Your task to perform on an android device: add a label to a message in the gmail app Image 0: 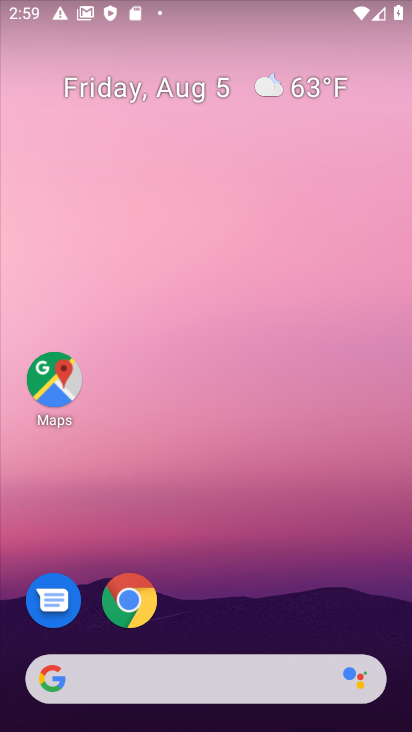
Step 0: drag from (170, 703) to (191, 68)
Your task to perform on an android device: add a label to a message in the gmail app Image 1: 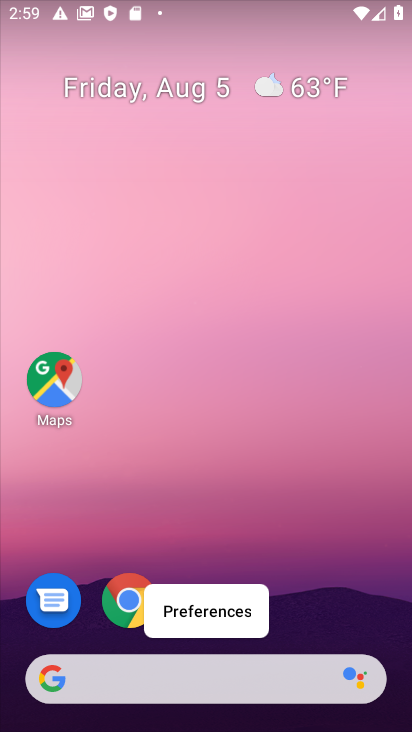
Step 1: drag from (188, 683) to (222, 12)
Your task to perform on an android device: add a label to a message in the gmail app Image 2: 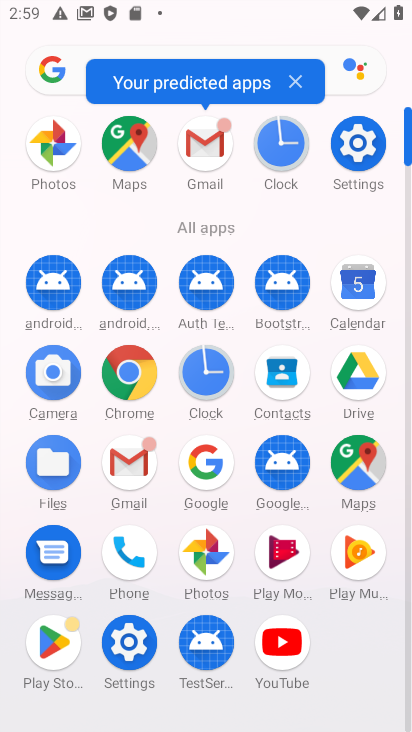
Step 2: click (206, 146)
Your task to perform on an android device: add a label to a message in the gmail app Image 3: 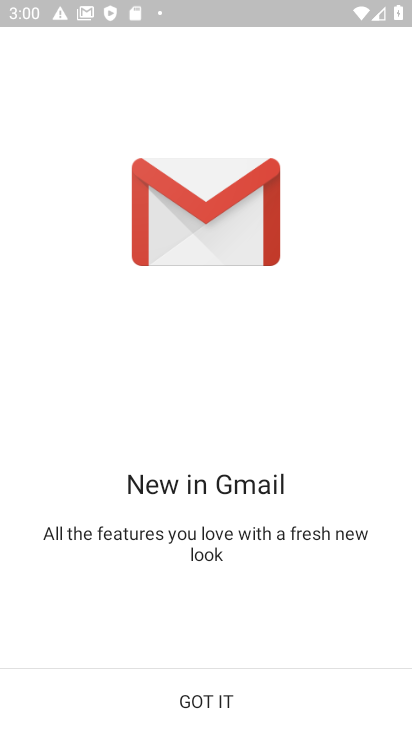
Step 3: click (218, 704)
Your task to perform on an android device: add a label to a message in the gmail app Image 4: 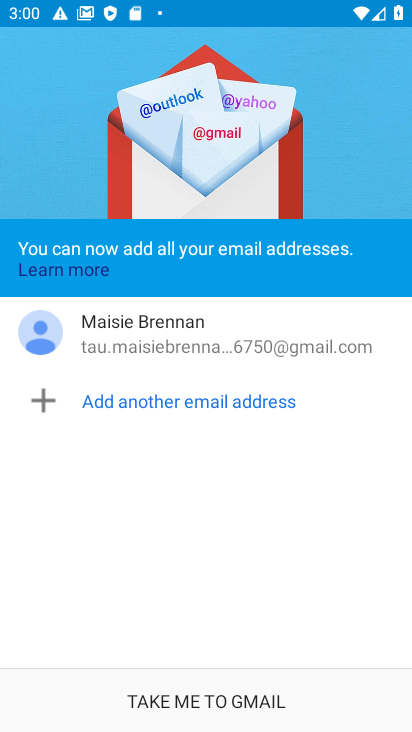
Step 4: click (218, 704)
Your task to perform on an android device: add a label to a message in the gmail app Image 5: 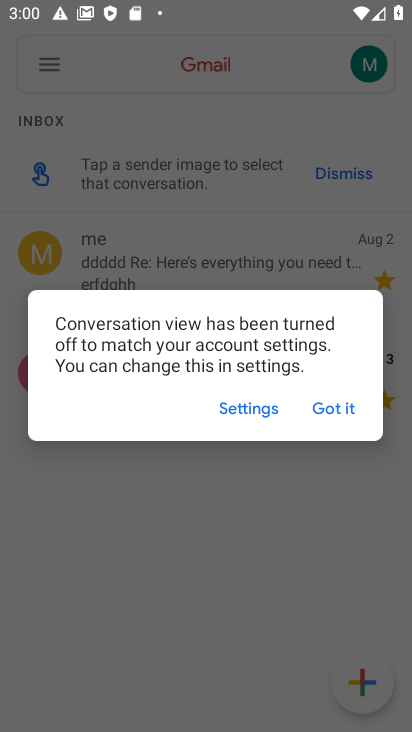
Step 5: click (348, 421)
Your task to perform on an android device: add a label to a message in the gmail app Image 6: 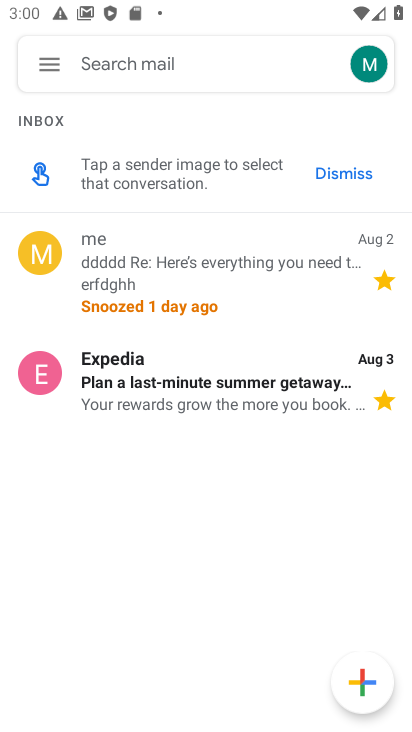
Step 6: click (48, 68)
Your task to perform on an android device: add a label to a message in the gmail app Image 7: 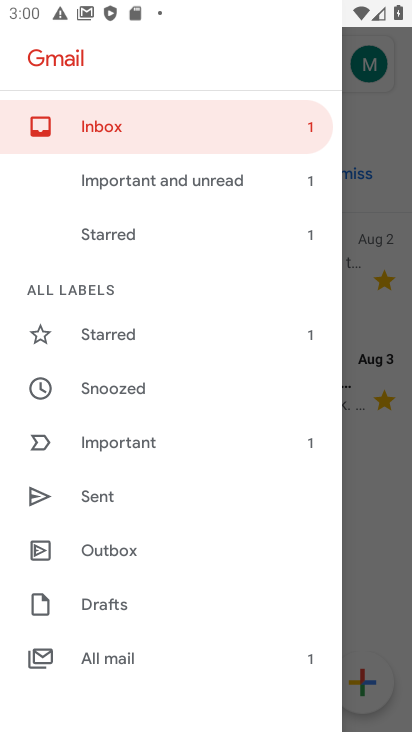
Step 7: click (124, 655)
Your task to perform on an android device: add a label to a message in the gmail app Image 8: 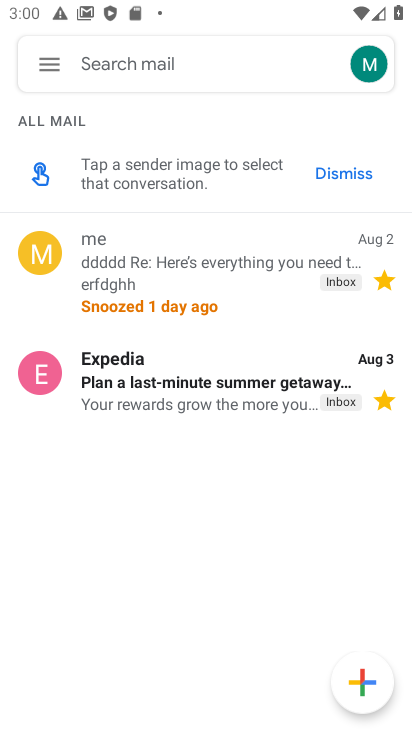
Step 8: click (231, 271)
Your task to perform on an android device: add a label to a message in the gmail app Image 9: 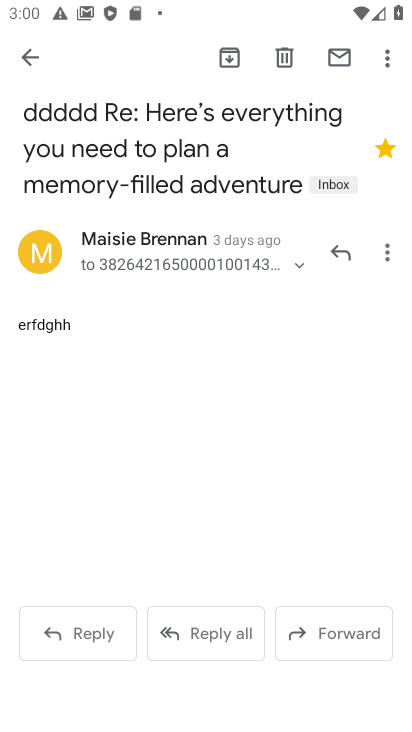
Step 9: click (29, 66)
Your task to perform on an android device: add a label to a message in the gmail app Image 10: 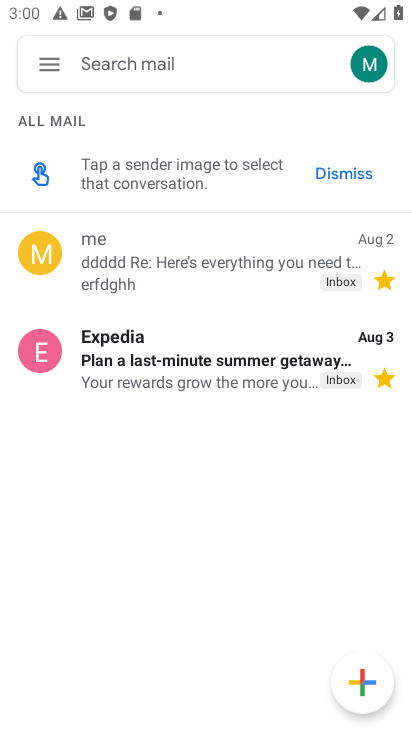
Step 10: click (155, 358)
Your task to perform on an android device: add a label to a message in the gmail app Image 11: 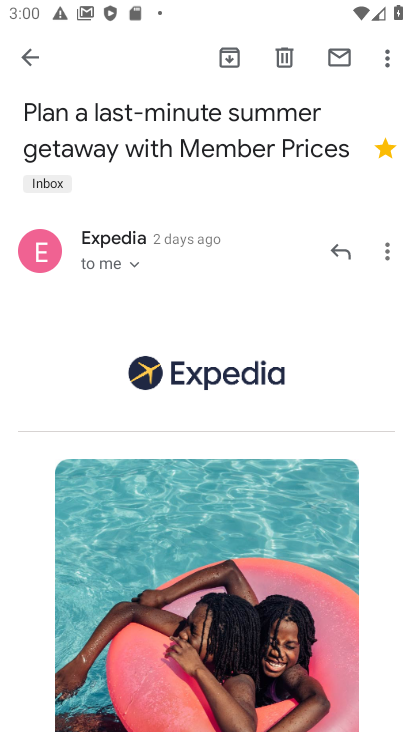
Step 11: drag from (220, 508) to (251, 199)
Your task to perform on an android device: add a label to a message in the gmail app Image 12: 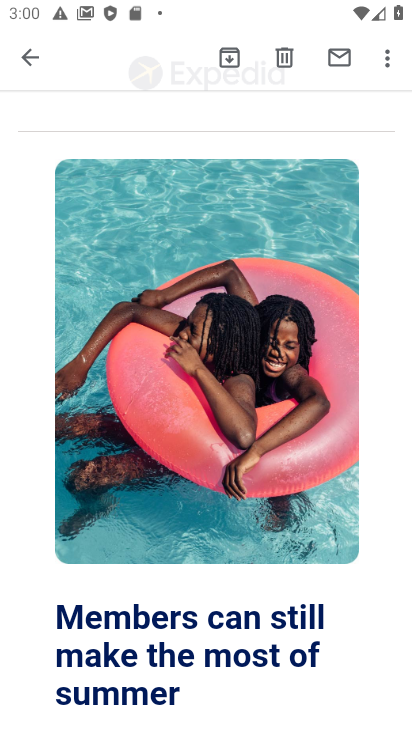
Step 12: click (25, 56)
Your task to perform on an android device: add a label to a message in the gmail app Image 13: 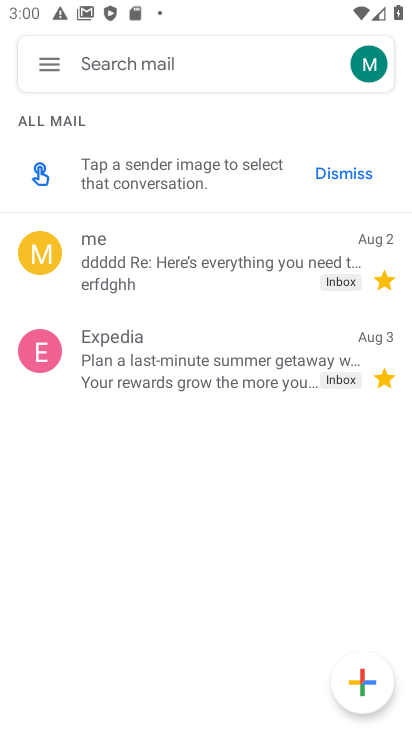
Step 13: click (41, 58)
Your task to perform on an android device: add a label to a message in the gmail app Image 14: 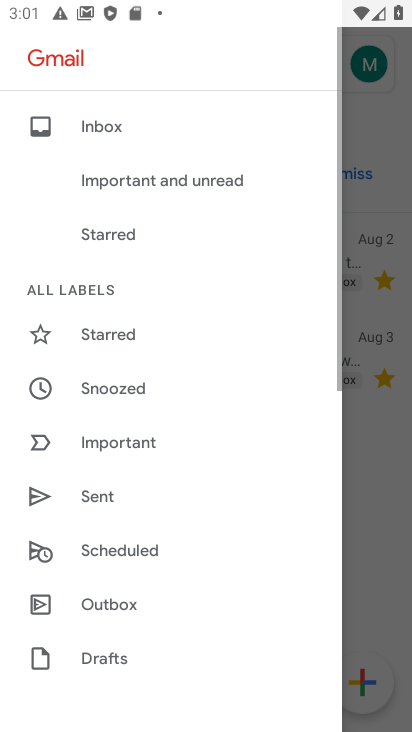
Step 14: click (90, 128)
Your task to perform on an android device: add a label to a message in the gmail app Image 15: 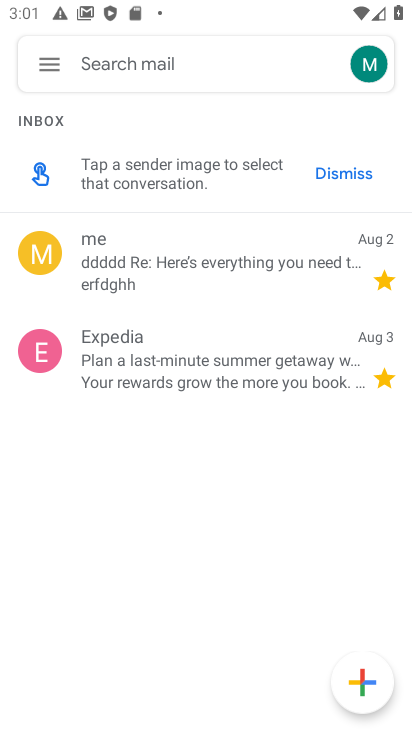
Step 15: click (141, 248)
Your task to perform on an android device: add a label to a message in the gmail app Image 16: 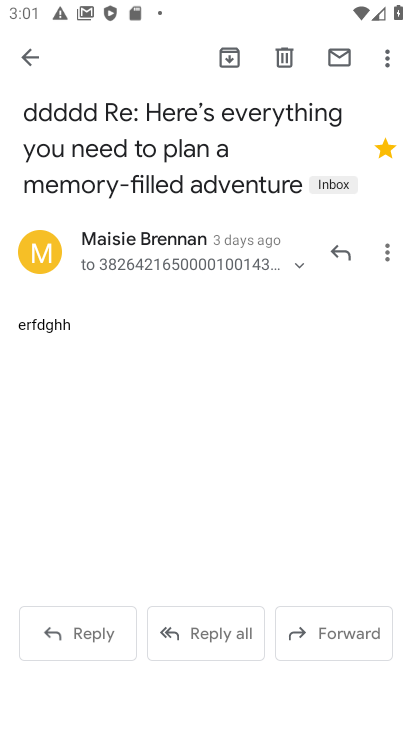
Step 16: click (239, 62)
Your task to perform on an android device: add a label to a message in the gmail app Image 17: 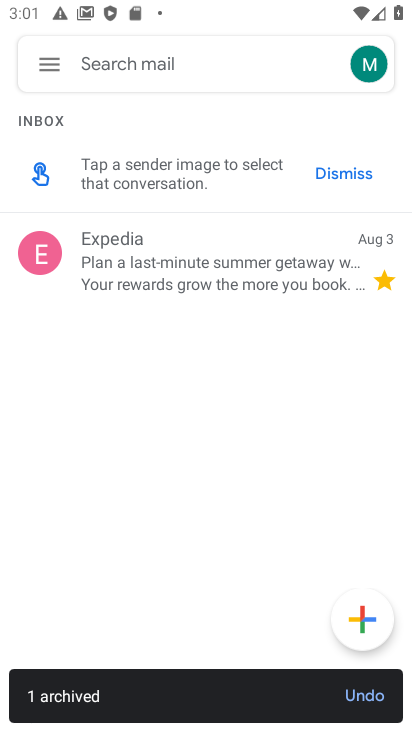
Step 17: click (52, 66)
Your task to perform on an android device: add a label to a message in the gmail app Image 18: 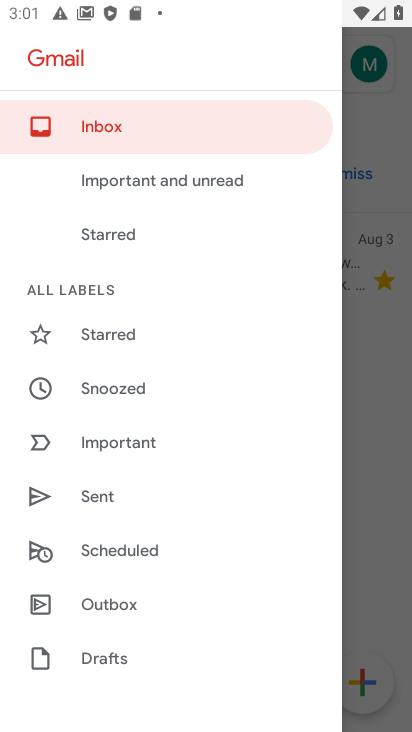
Step 18: click (117, 333)
Your task to perform on an android device: add a label to a message in the gmail app Image 19: 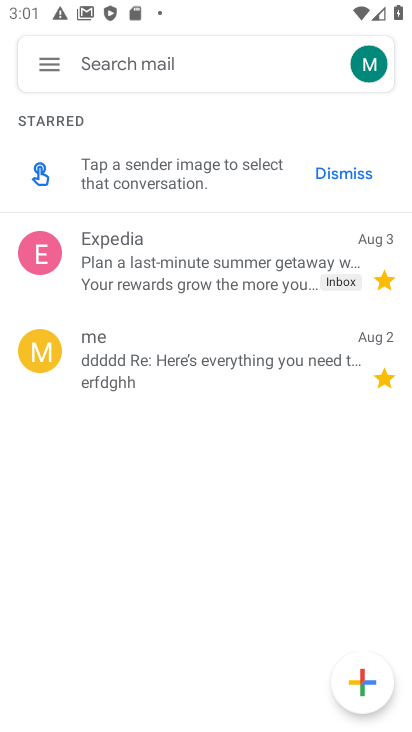
Step 19: click (180, 254)
Your task to perform on an android device: add a label to a message in the gmail app Image 20: 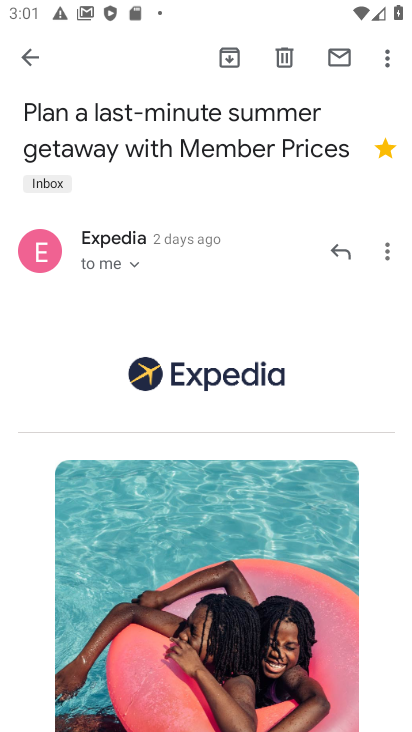
Step 20: drag from (184, 571) to (272, 257)
Your task to perform on an android device: add a label to a message in the gmail app Image 21: 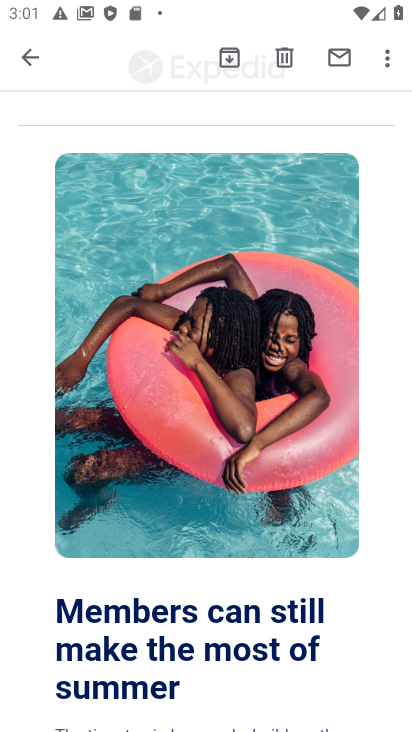
Step 21: drag from (179, 277) to (231, 552)
Your task to perform on an android device: add a label to a message in the gmail app Image 22: 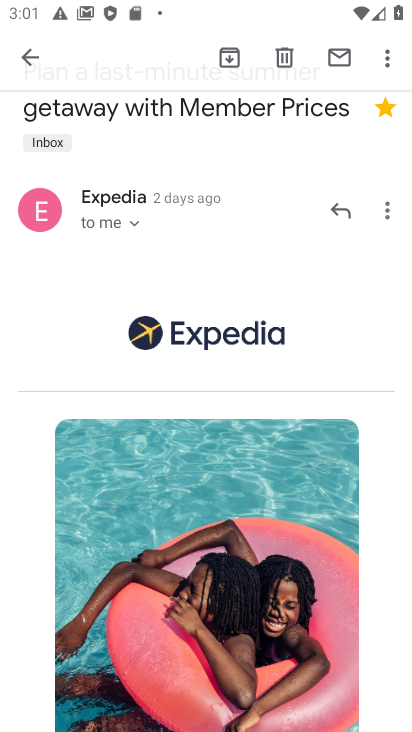
Step 22: click (136, 224)
Your task to perform on an android device: add a label to a message in the gmail app Image 23: 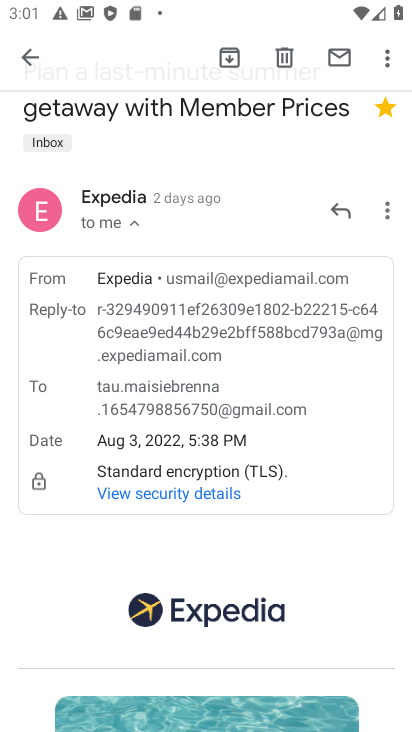
Step 23: drag from (173, 157) to (220, 377)
Your task to perform on an android device: add a label to a message in the gmail app Image 24: 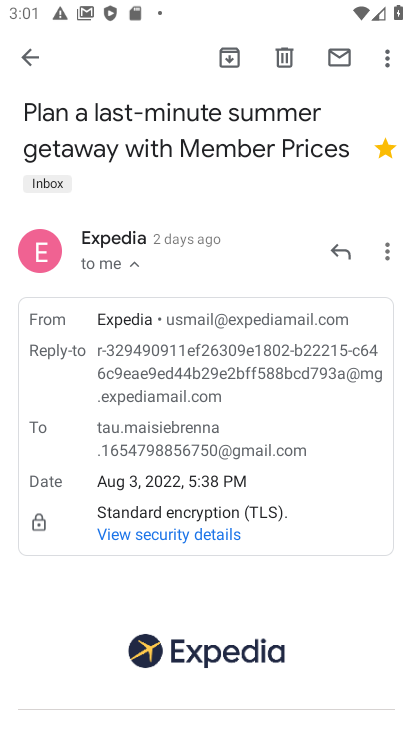
Step 24: click (382, 158)
Your task to perform on an android device: add a label to a message in the gmail app Image 25: 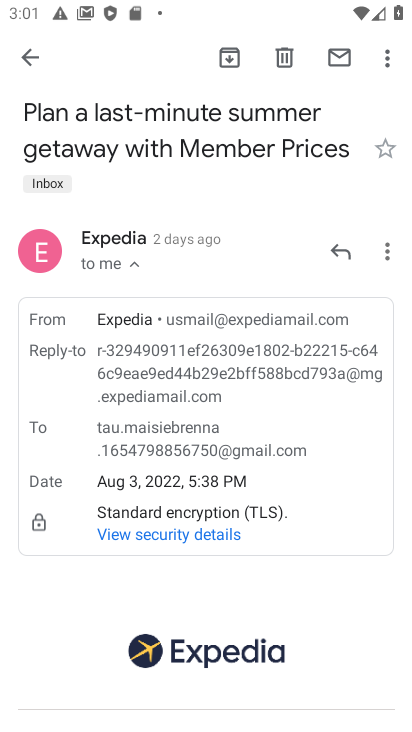
Step 25: click (388, 59)
Your task to perform on an android device: add a label to a message in the gmail app Image 26: 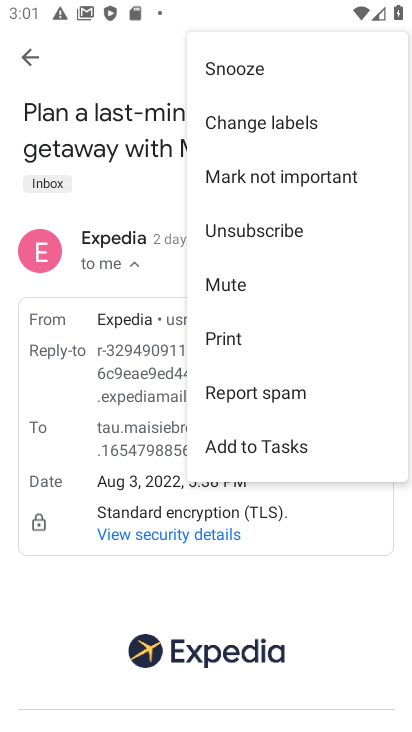
Step 26: click (303, 138)
Your task to perform on an android device: add a label to a message in the gmail app Image 27: 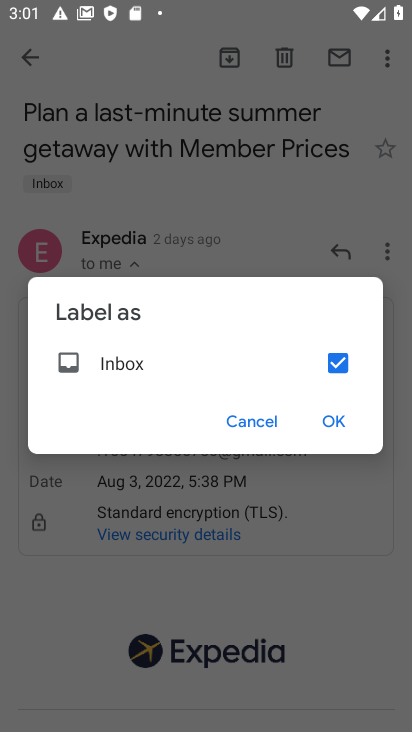
Step 27: click (356, 434)
Your task to perform on an android device: add a label to a message in the gmail app Image 28: 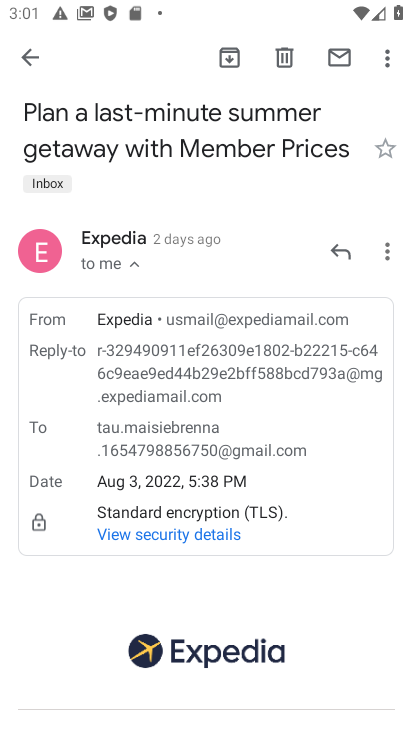
Step 28: press back button
Your task to perform on an android device: add a label to a message in the gmail app Image 29: 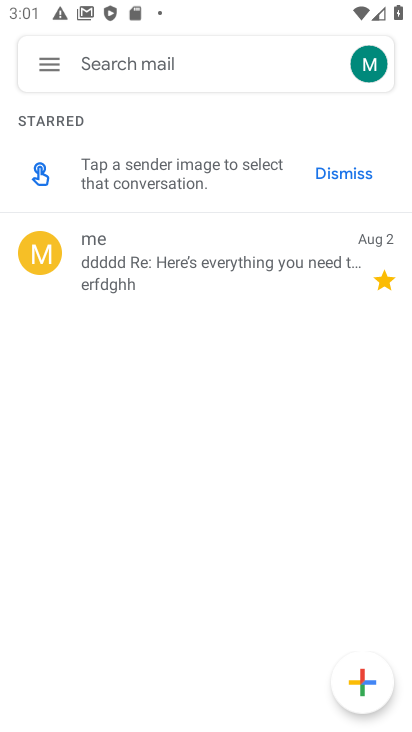
Step 29: click (43, 58)
Your task to perform on an android device: add a label to a message in the gmail app Image 30: 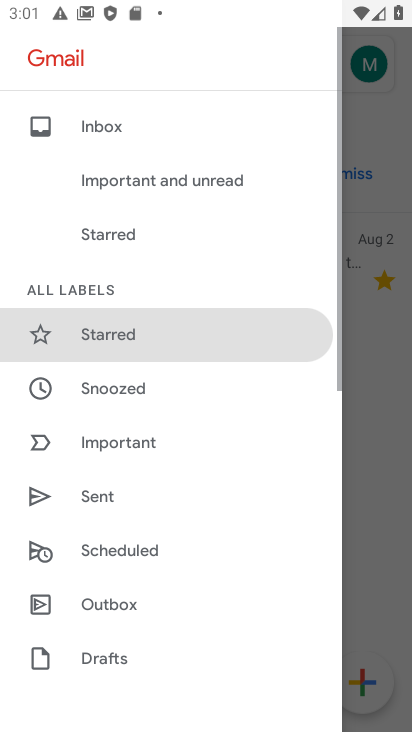
Step 30: click (136, 127)
Your task to perform on an android device: add a label to a message in the gmail app Image 31: 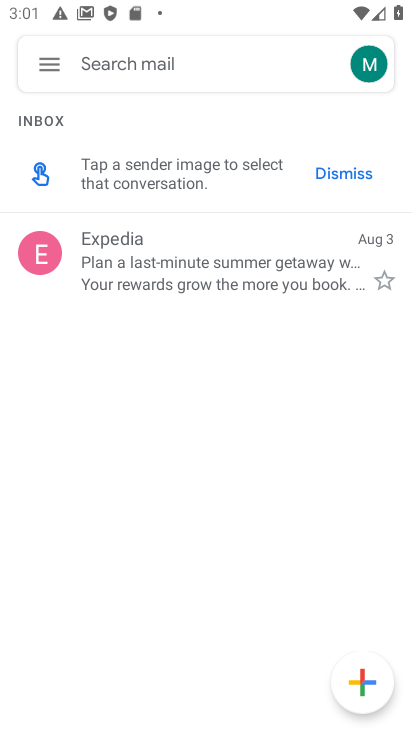
Step 31: click (152, 259)
Your task to perform on an android device: add a label to a message in the gmail app Image 32: 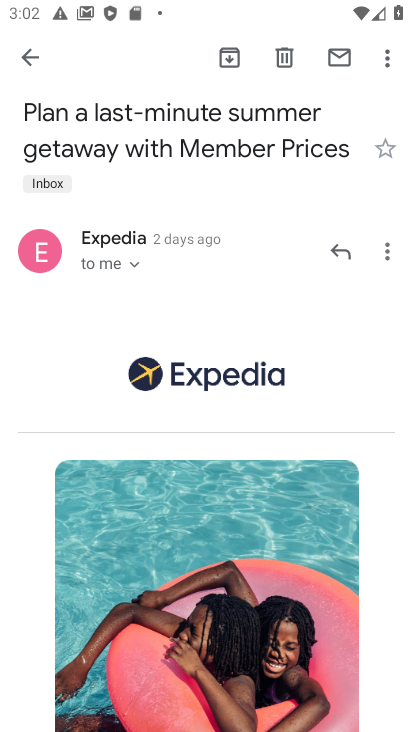
Step 32: task complete